Your task to perform on an android device: toggle data saver in the chrome app Image 0: 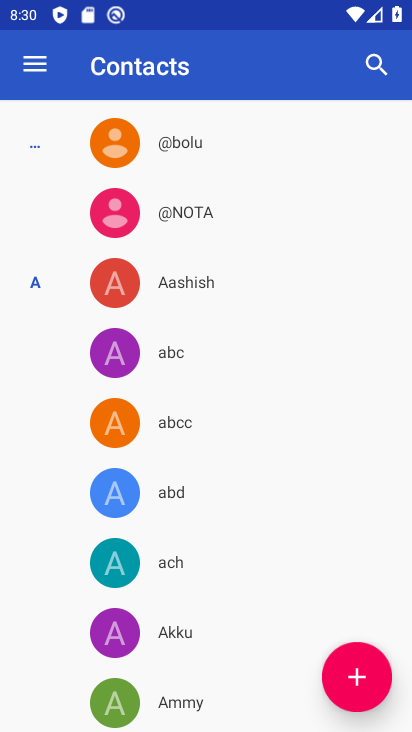
Step 0: press back button
Your task to perform on an android device: toggle data saver in the chrome app Image 1: 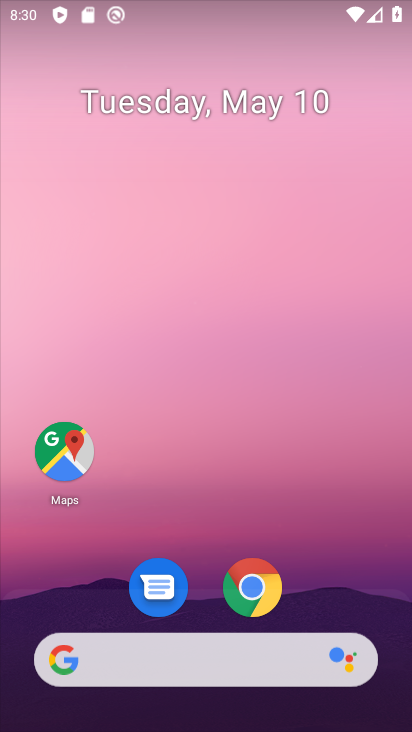
Step 1: click (250, 590)
Your task to perform on an android device: toggle data saver in the chrome app Image 2: 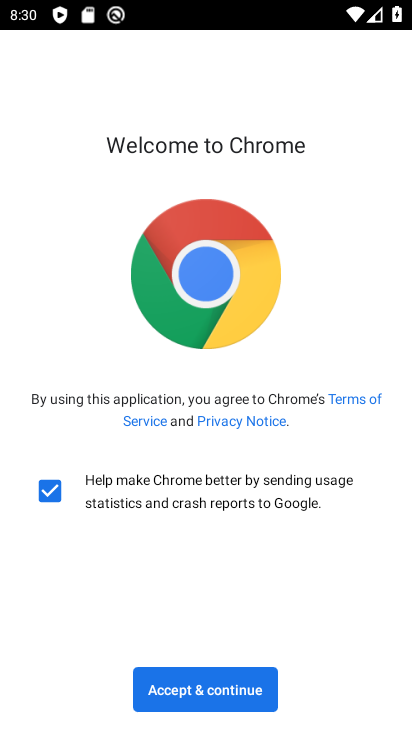
Step 2: click (200, 679)
Your task to perform on an android device: toggle data saver in the chrome app Image 3: 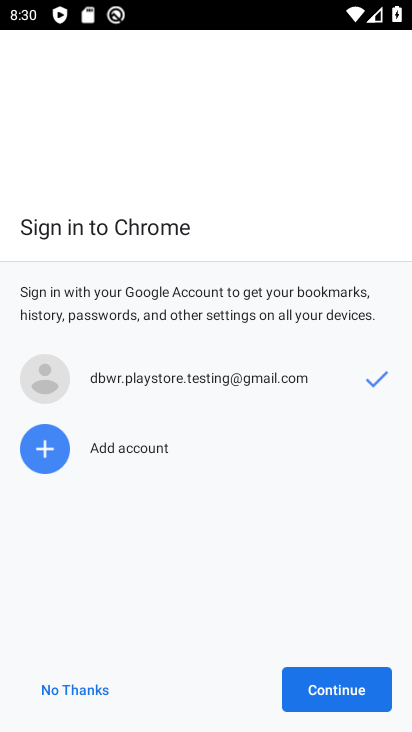
Step 3: click (334, 684)
Your task to perform on an android device: toggle data saver in the chrome app Image 4: 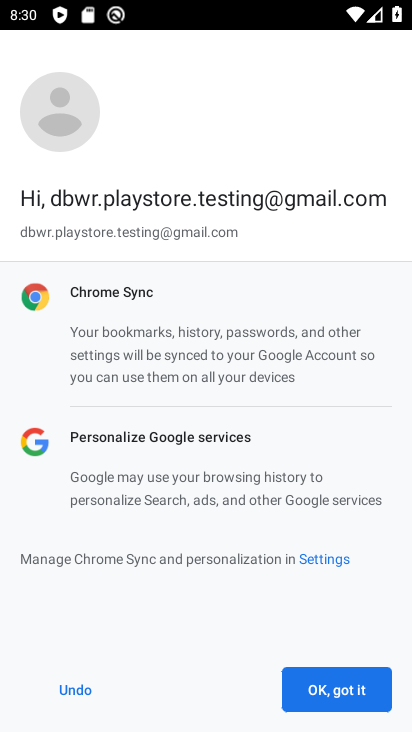
Step 4: click (334, 684)
Your task to perform on an android device: toggle data saver in the chrome app Image 5: 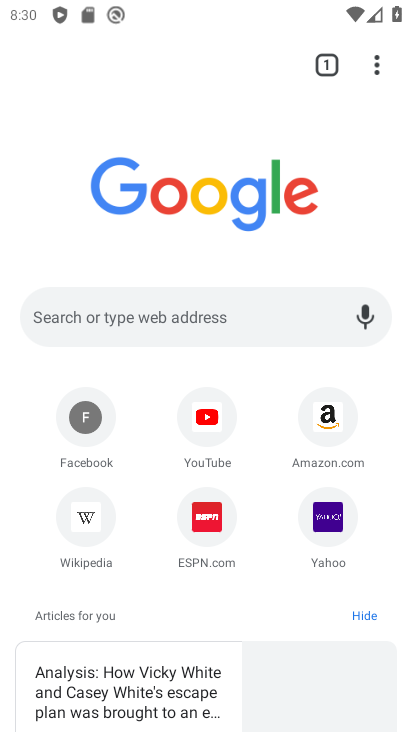
Step 5: click (374, 65)
Your task to perform on an android device: toggle data saver in the chrome app Image 6: 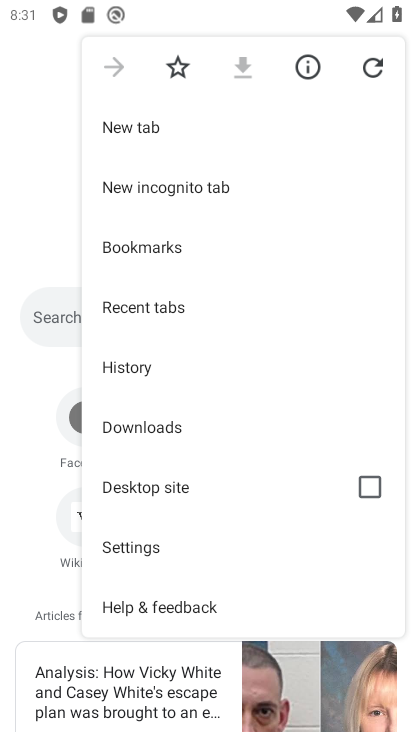
Step 6: drag from (164, 466) to (182, 400)
Your task to perform on an android device: toggle data saver in the chrome app Image 7: 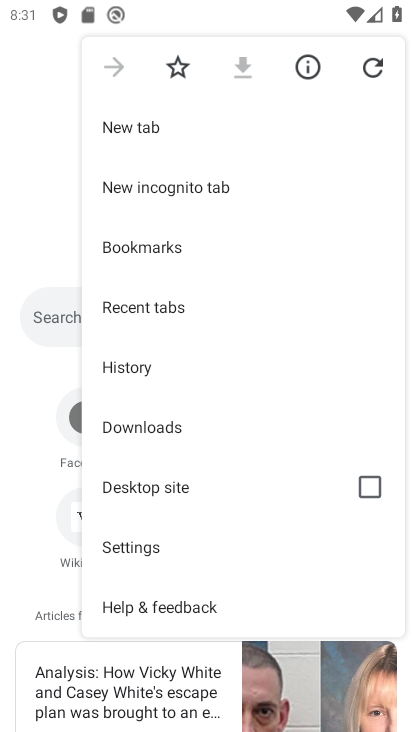
Step 7: click (135, 540)
Your task to perform on an android device: toggle data saver in the chrome app Image 8: 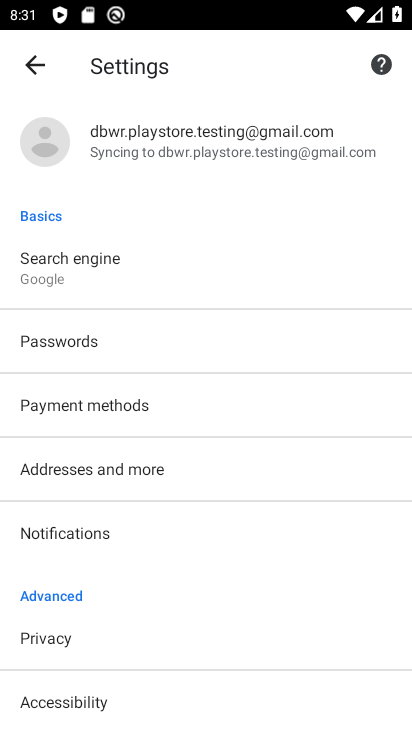
Step 8: drag from (145, 608) to (217, 448)
Your task to perform on an android device: toggle data saver in the chrome app Image 9: 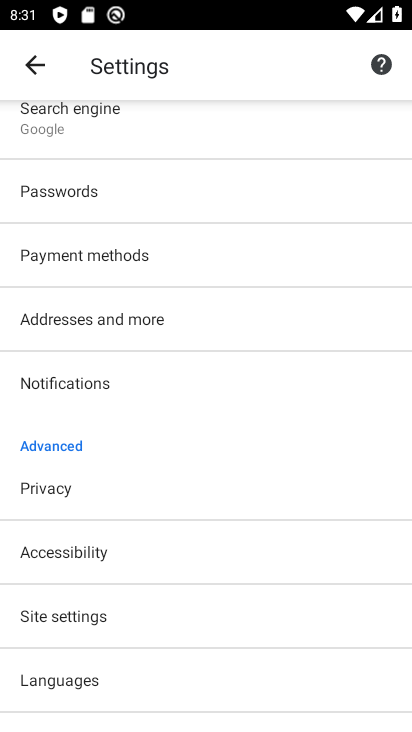
Step 9: drag from (164, 599) to (240, 468)
Your task to perform on an android device: toggle data saver in the chrome app Image 10: 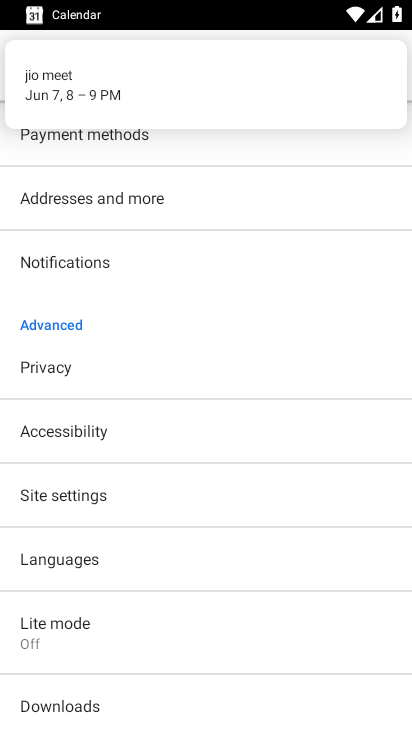
Step 10: click (113, 622)
Your task to perform on an android device: toggle data saver in the chrome app Image 11: 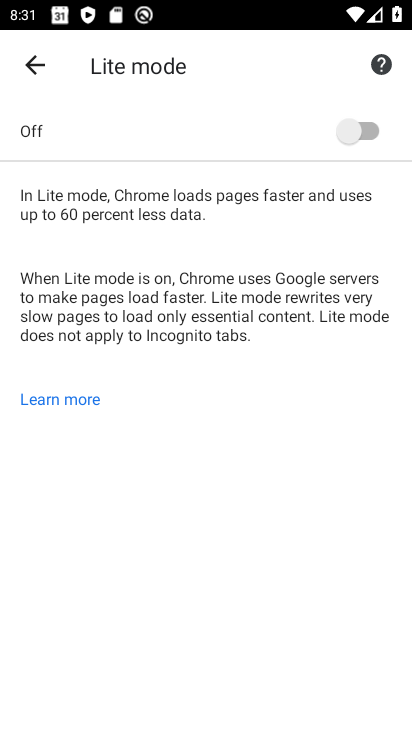
Step 11: click (354, 136)
Your task to perform on an android device: toggle data saver in the chrome app Image 12: 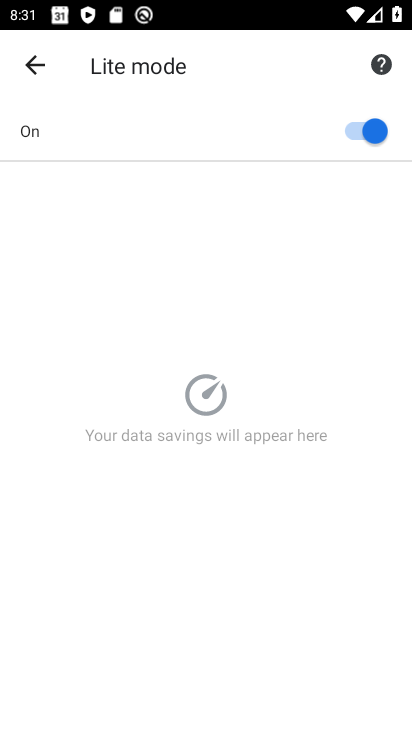
Step 12: task complete